Your task to perform on an android device: toggle show notifications on the lock screen Image 0: 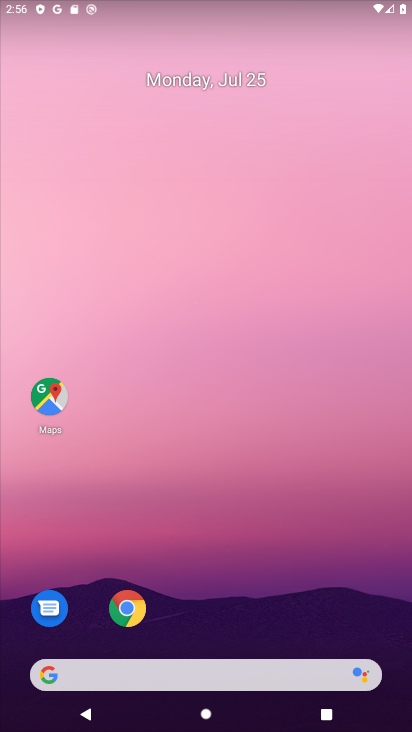
Step 0: press home button
Your task to perform on an android device: toggle show notifications on the lock screen Image 1: 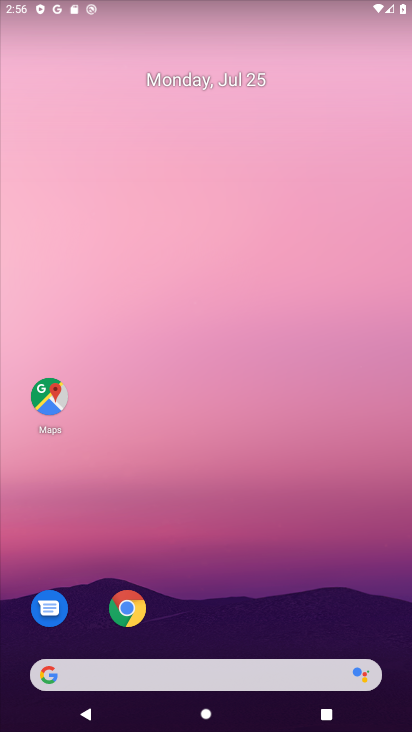
Step 1: drag from (103, 423) to (272, 37)
Your task to perform on an android device: toggle show notifications on the lock screen Image 2: 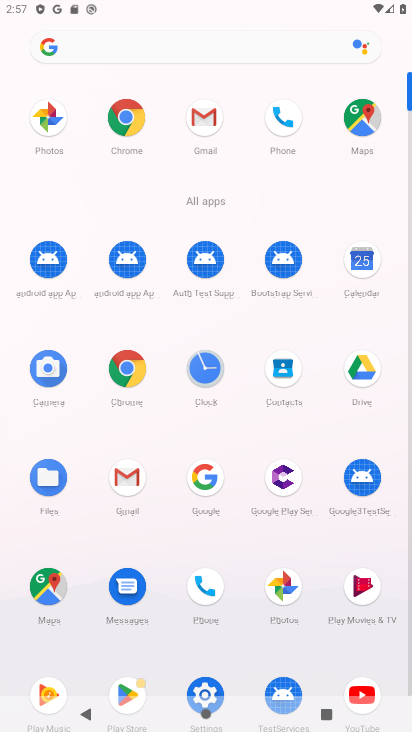
Step 2: click (209, 676)
Your task to perform on an android device: toggle show notifications on the lock screen Image 3: 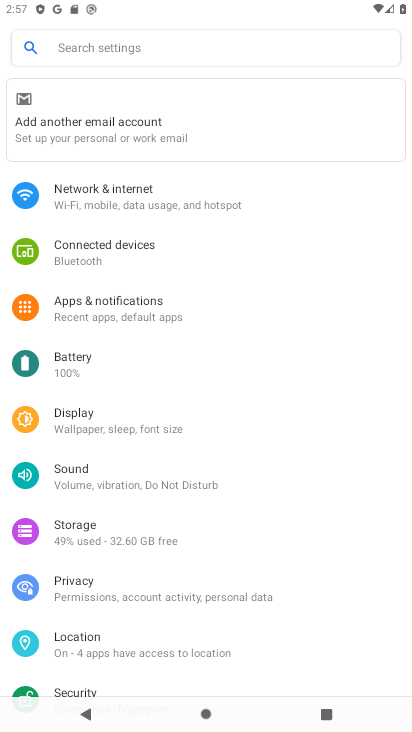
Step 3: drag from (57, 445) to (222, 159)
Your task to perform on an android device: toggle show notifications on the lock screen Image 4: 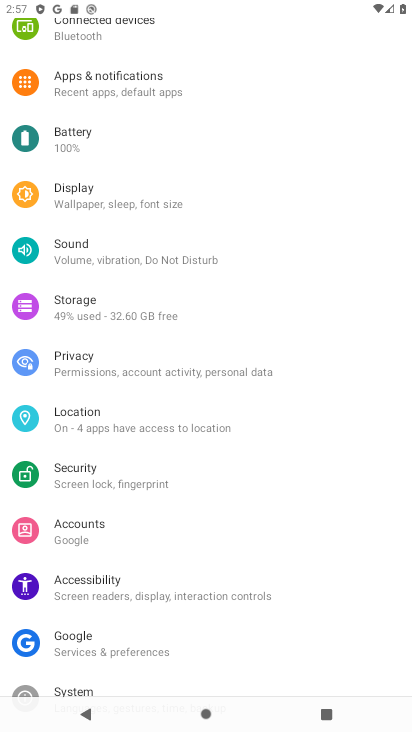
Step 4: click (93, 73)
Your task to perform on an android device: toggle show notifications on the lock screen Image 5: 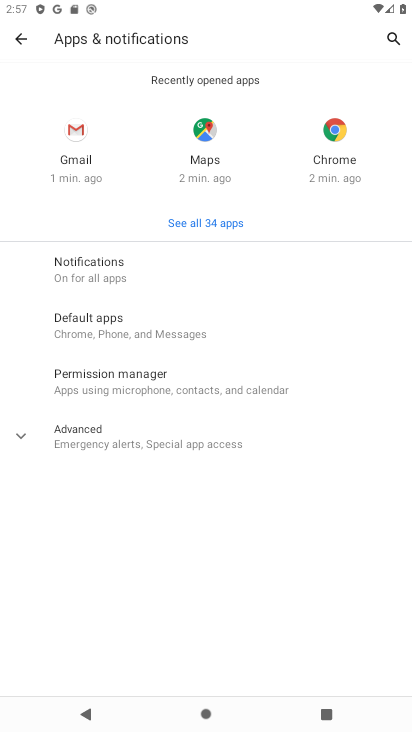
Step 5: click (76, 273)
Your task to perform on an android device: toggle show notifications on the lock screen Image 6: 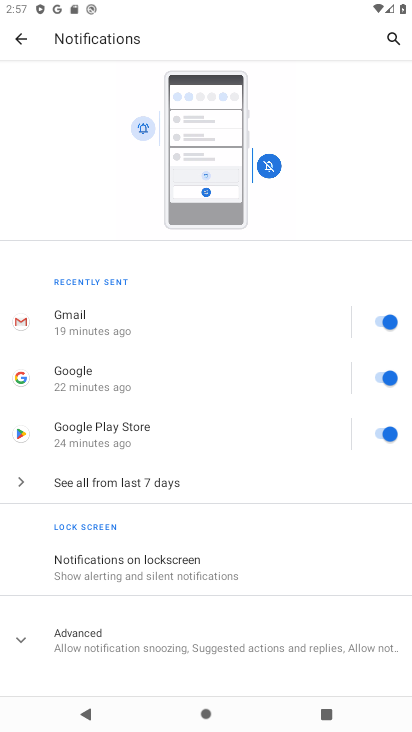
Step 6: click (93, 636)
Your task to perform on an android device: toggle show notifications on the lock screen Image 7: 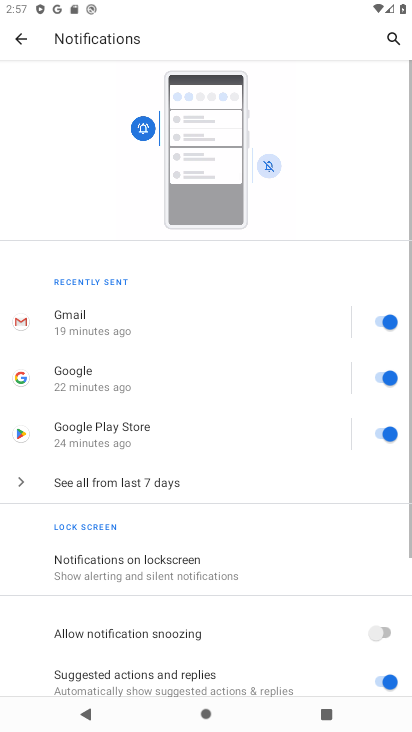
Step 7: drag from (10, 563) to (194, 101)
Your task to perform on an android device: toggle show notifications on the lock screen Image 8: 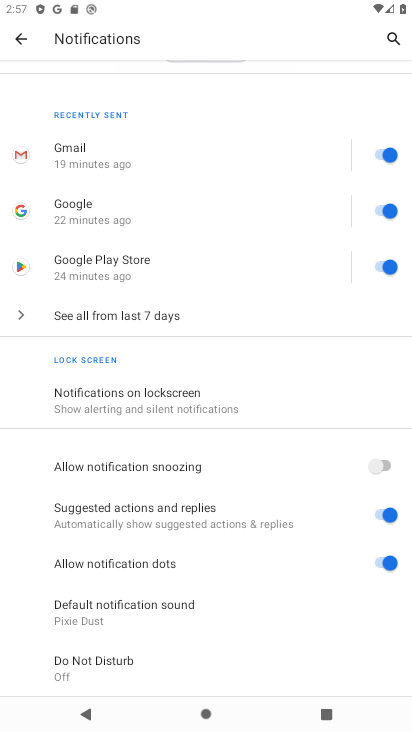
Step 8: click (198, 399)
Your task to perform on an android device: toggle show notifications on the lock screen Image 9: 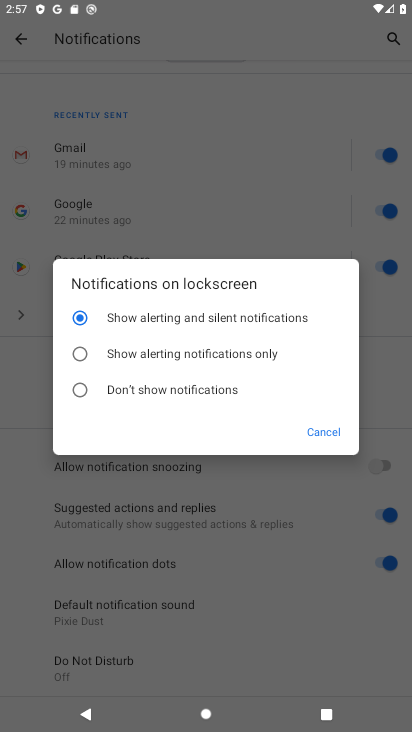
Step 9: click (184, 354)
Your task to perform on an android device: toggle show notifications on the lock screen Image 10: 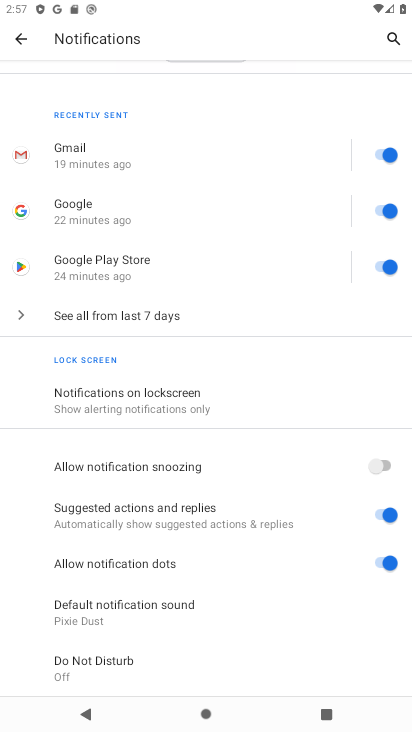
Step 10: task complete